Your task to perform on an android device: Go to Reddit.com Image 0: 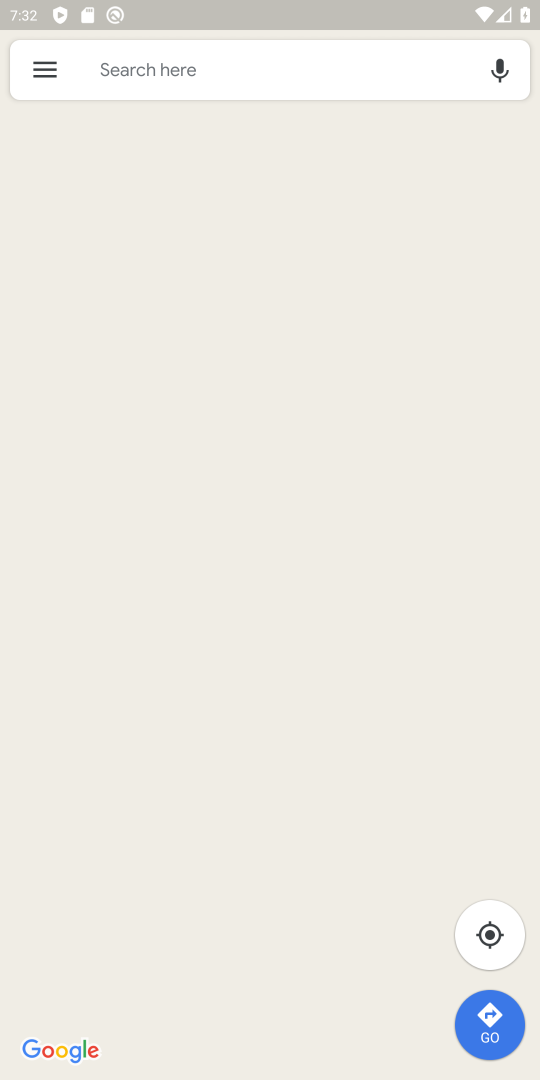
Step 0: press home button
Your task to perform on an android device: Go to Reddit.com Image 1: 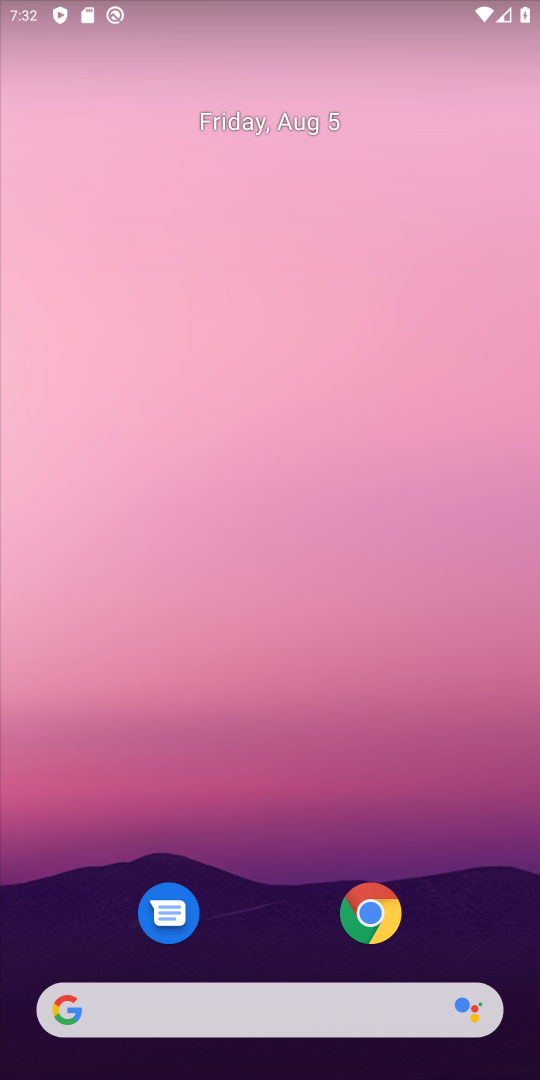
Step 1: drag from (461, 892) to (490, 235)
Your task to perform on an android device: Go to Reddit.com Image 2: 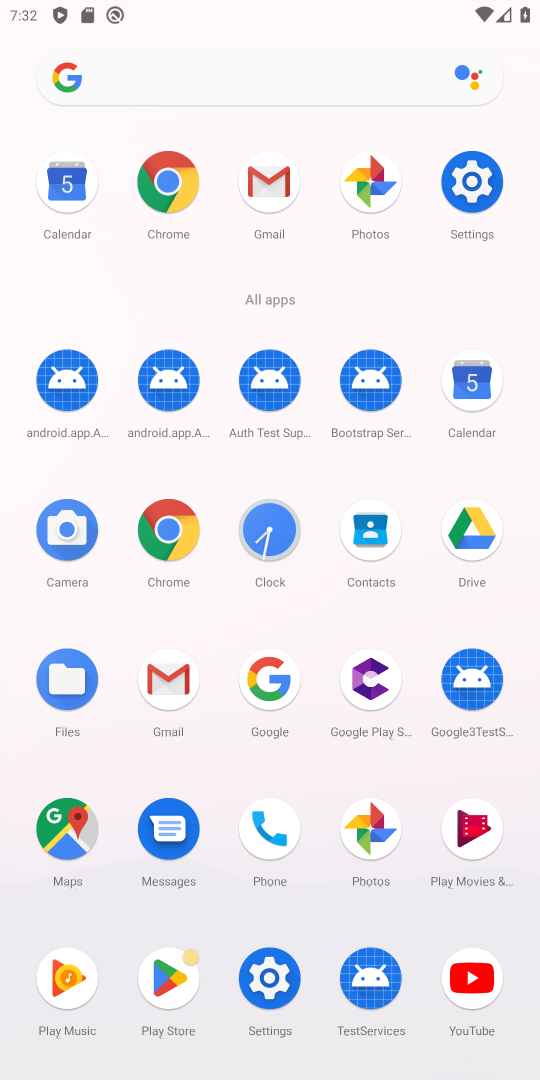
Step 2: click (167, 535)
Your task to perform on an android device: Go to Reddit.com Image 3: 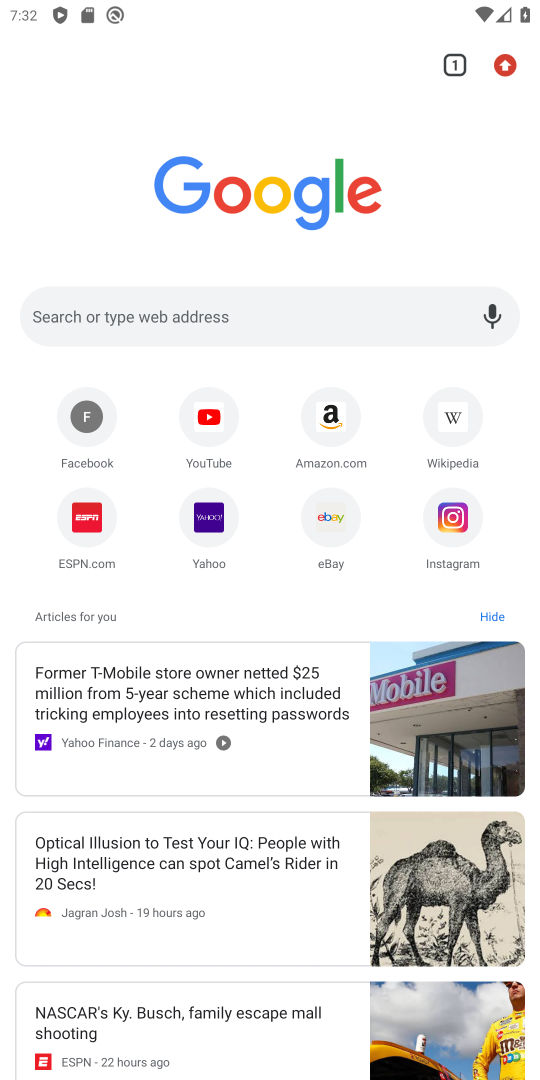
Step 3: click (293, 310)
Your task to perform on an android device: Go to Reddit.com Image 4: 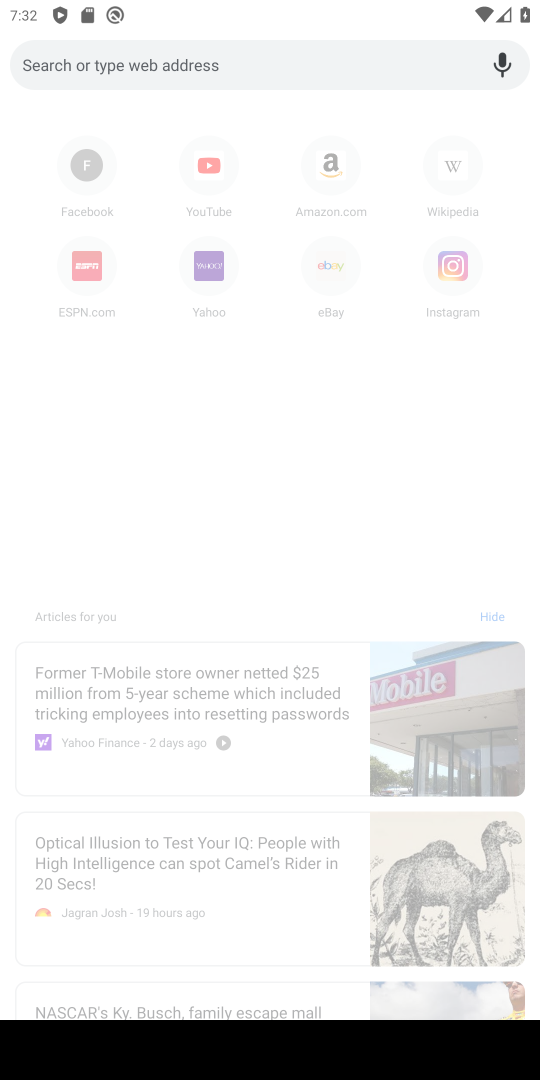
Step 4: type "reddit.com"
Your task to perform on an android device: Go to Reddit.com Image 5: 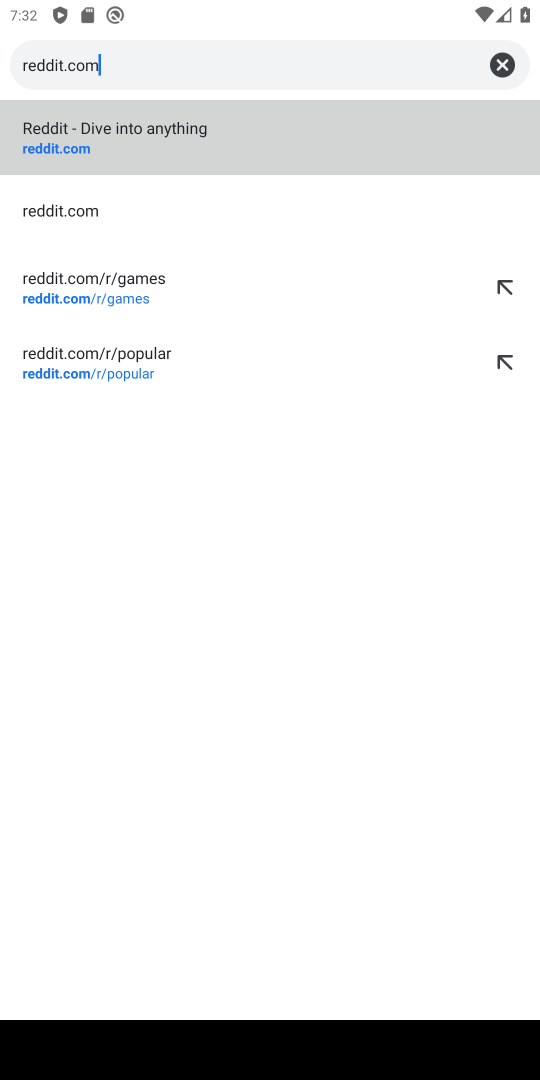
Step 5: click (189, 140)
Your task to perform on an android device: Go to Reddit.com Image 6: 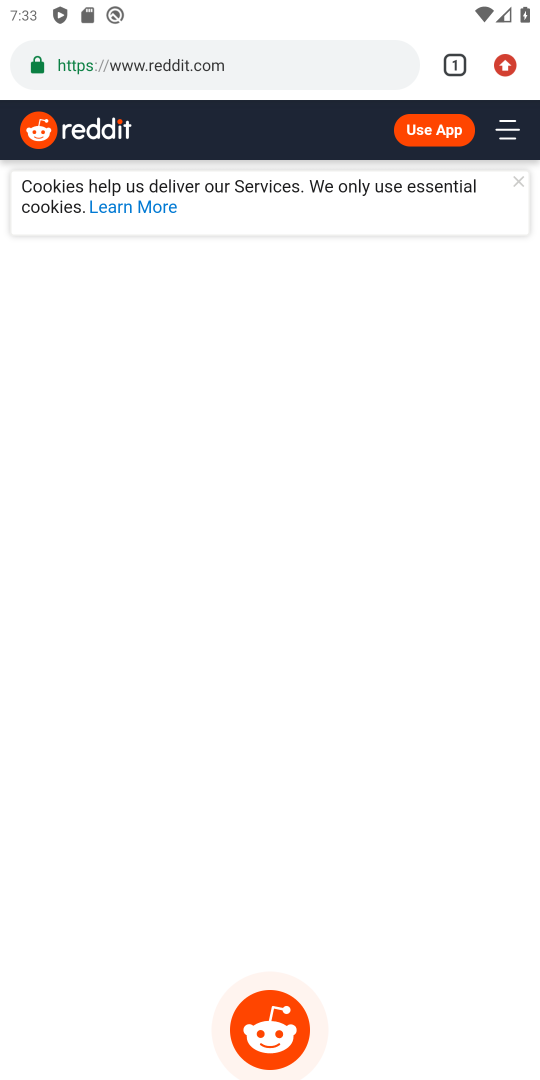
Step 6: task complete